Your task to perform on an android device: open app "Etsy: Buy & Sell Unique Items" Image 0: 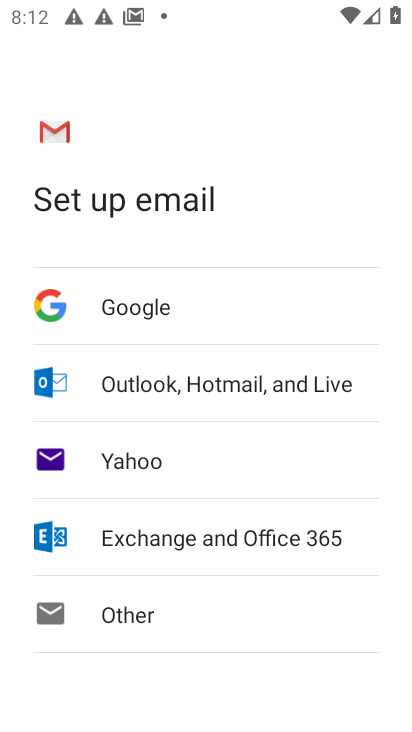
Step 0: press home button
Your task to perform on an android device: open app "Etsy: Buy & Sell Unique Items" Image 1: 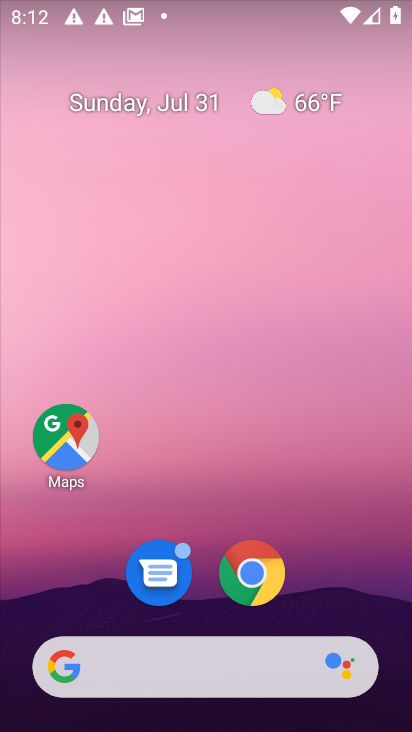
Step 1: drag from (188, 473) to (180, 2)
Your task to perform on an android device: open app "Etsy: Buy & Sell Unique Items" Image 2: 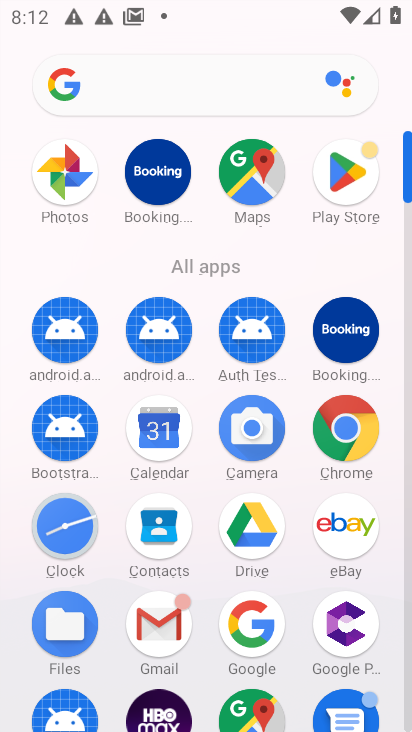
Step 2: click (350, 203)
Your task to perform on an android device: open app "Etsy: Buy & Sell Unique Items" Image 3: 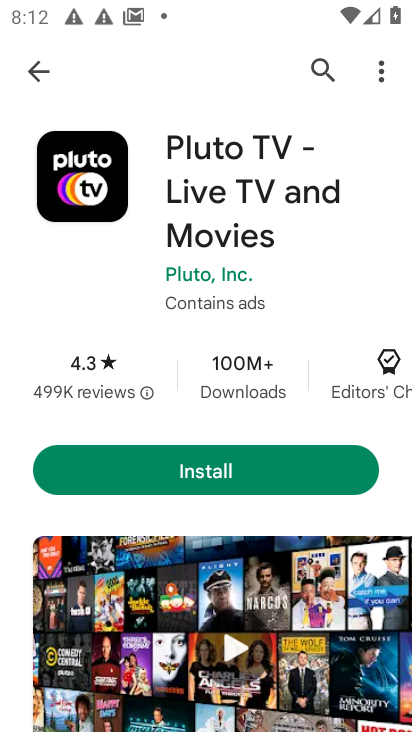
Step 3: click (30, 71)
Your task to perform on an android device: open app "Etsy: Buy & Sell Unique Items" Image 4: 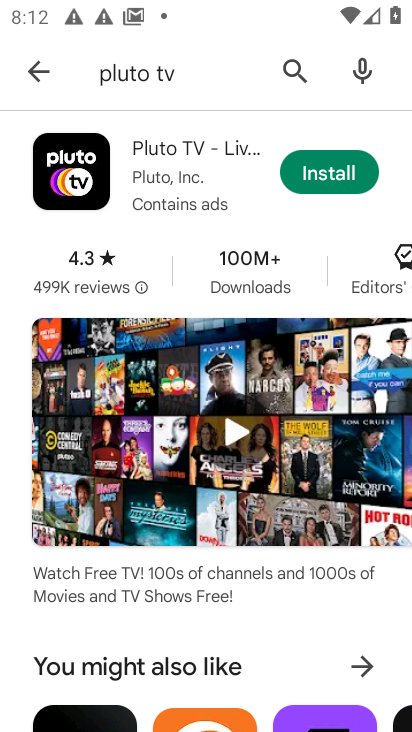
Step 4: click (172, 67)
Your task to perform on an android device: open app "Etsy: Buy & Sell Unique Items" Image 5: 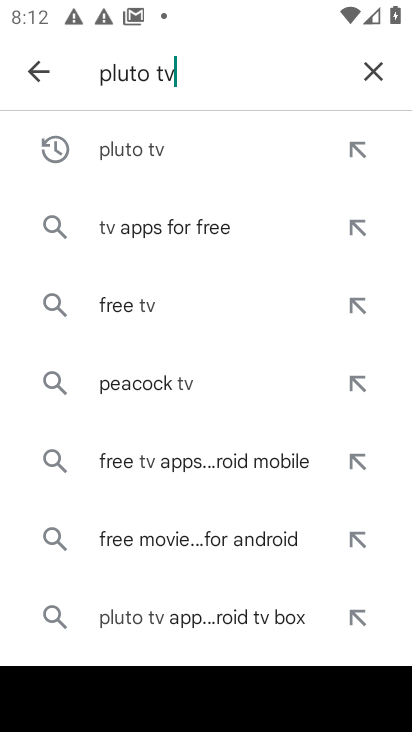
Step 5: click (375, 70)
Your task to perform on an android device: open app "Etsy: Buy & Sell Unique Items" Image 6: 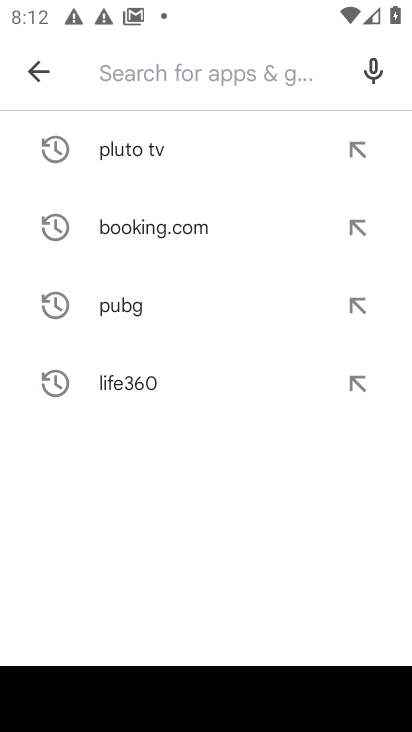
Step 6: type "etsy"
Your task to perform on an android device: open app "Etsy: Buy & Sell Unique Items" Image 7: 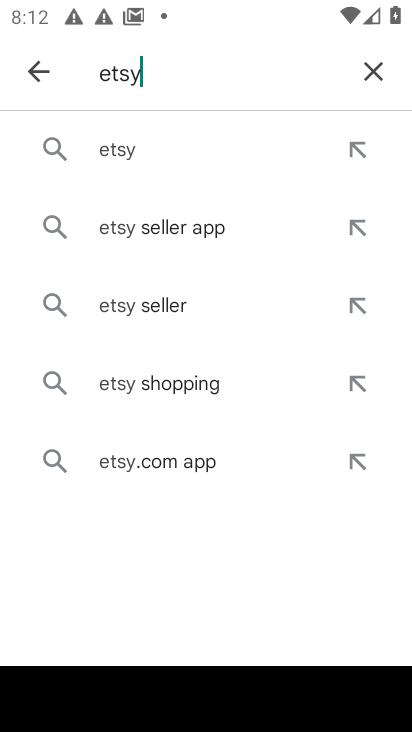
Step 7: click (125, 158)
Your task to perform on an android device: open app "Etsy: Buy & Sell Unique Items" Image 8: 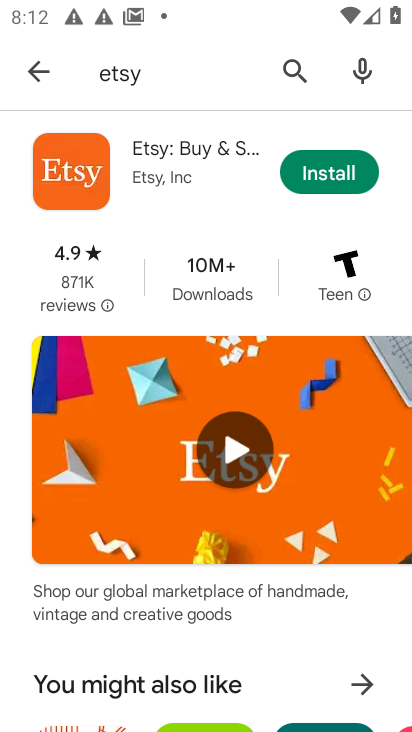
Step 8: task complete